Your task to perform on an android device: turn on the 24-hour format for clock Image 0: 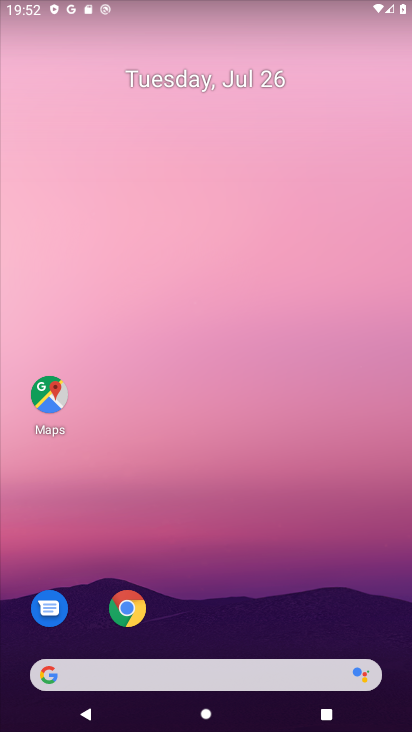
Step 0: drag from (235, 474) to (113, 15)
Your task to perform on an android device: turn on the 24-hour format for clock Image 1: 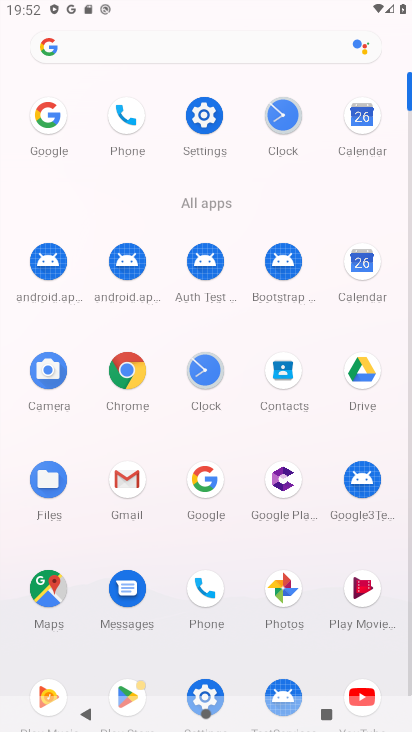
Step 1: click (208, 387)
Your task to perform on an android device: turn on the 24-hour format for clock Image 2: 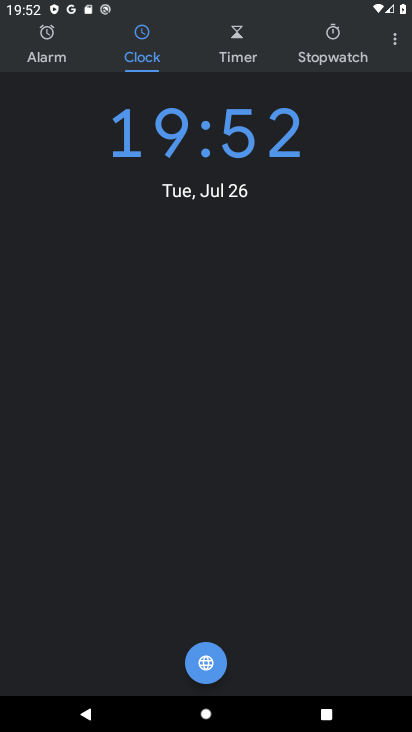
Step 2: click (399, 38)
Your task to perform on an android device: turn on the 24-hour format for clock Image 3: 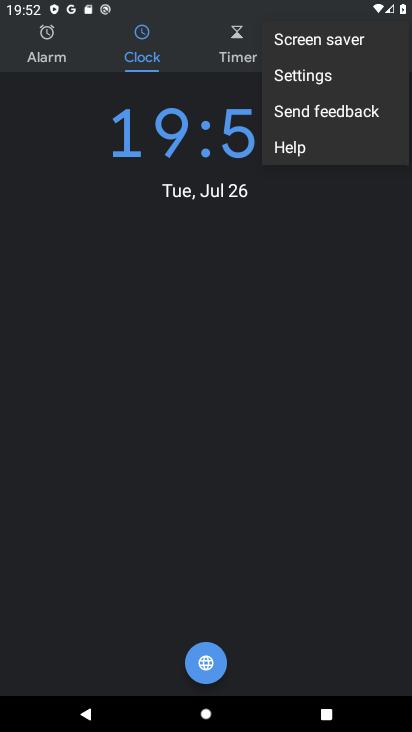
Step 3: click (311, 80)
Your task to perform on an android device: turn on the 24-hour format for clock Image 4: 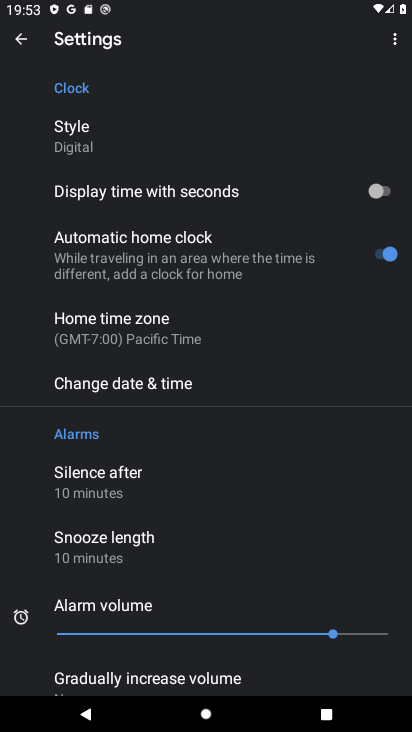
Step 4: drag from (109, 615) to (114, 218)
Your task to perform on an android device: turn on the 24-hour format for clock Image 5: 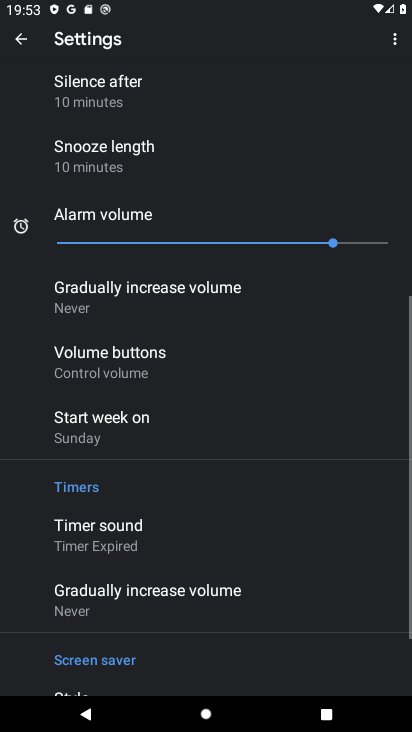
Step 5: drag from (103, 233) to (195, 603)
Your task to perform on an android device: turn on the 24-hour format for clock Image 6: 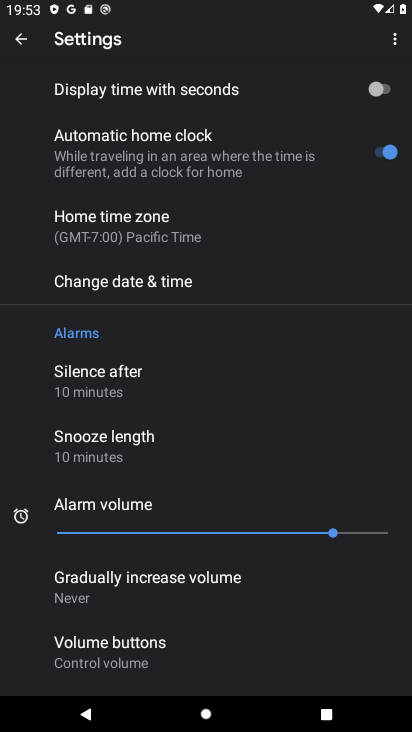
Step 6: click (85, 276)
Your task to perform on an android device: turn on the 24-hour format for clock Image 7: 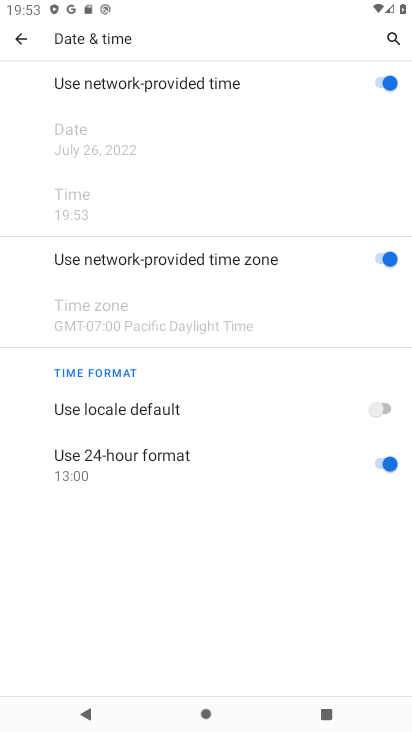
Step 7: task complete